Your task to perform on an android device: change the clock style Image 0: 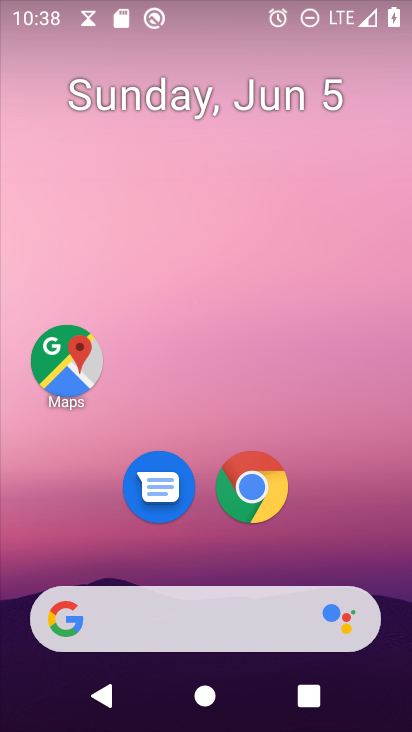
Step 0: drag from (303, 468) to (270, 171)
Your task to perform on an android device: change the clock style Image 1: 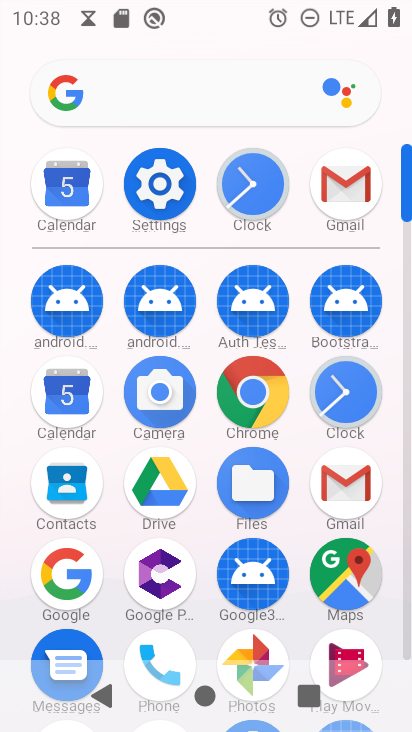
Step 1: click (262, 174)
Your task to perform on an android device: change the clock style Image 2: 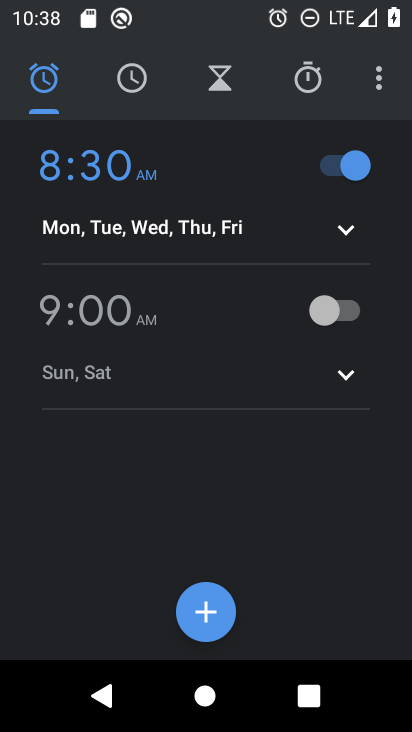
Step 2: click (368, 79)
Your task to perform on an android device: change the clock style Image 3: 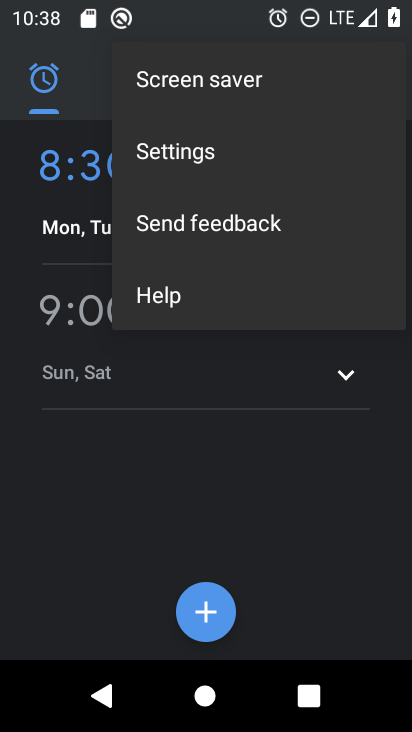
Step 3: click (182, 160)
Your task to perform on an android device: change the clock style Image 4: 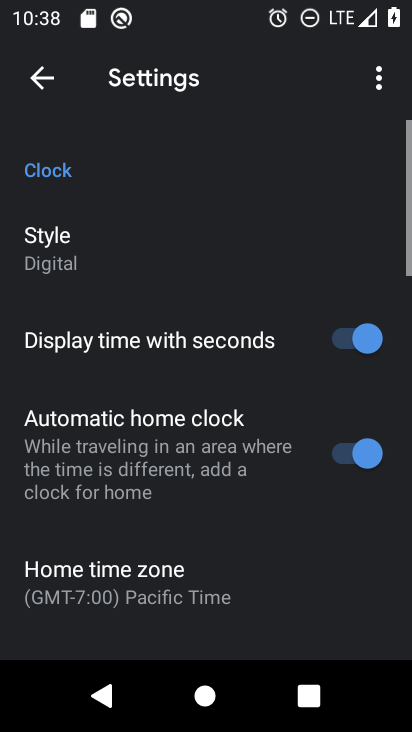
Step 4: click (128, 274)
Your task to perform on an android device: change the clock style Image 5: 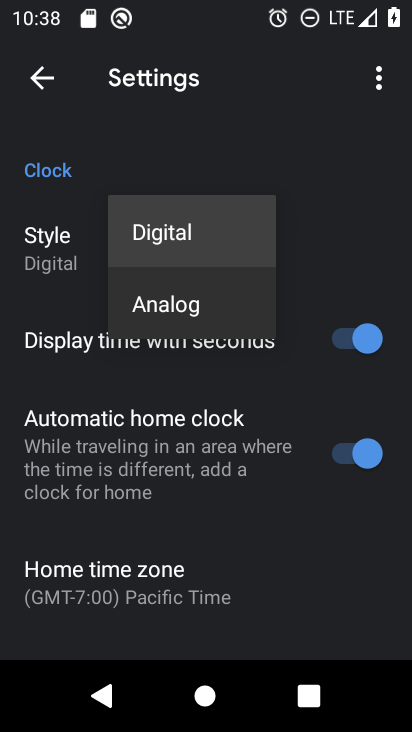
Step 5: click (158, 300)
Your task to perform on an android device: change the clock style Image 6: 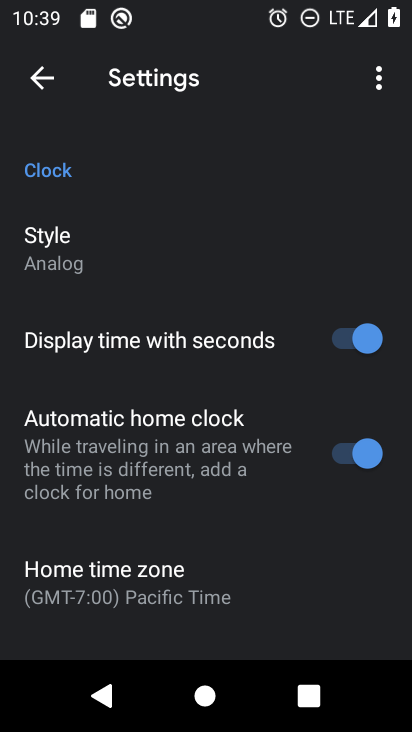
Step 6: task complete